Your task to perform on an android device: Set the phone to "Do not disturb". Image 0: 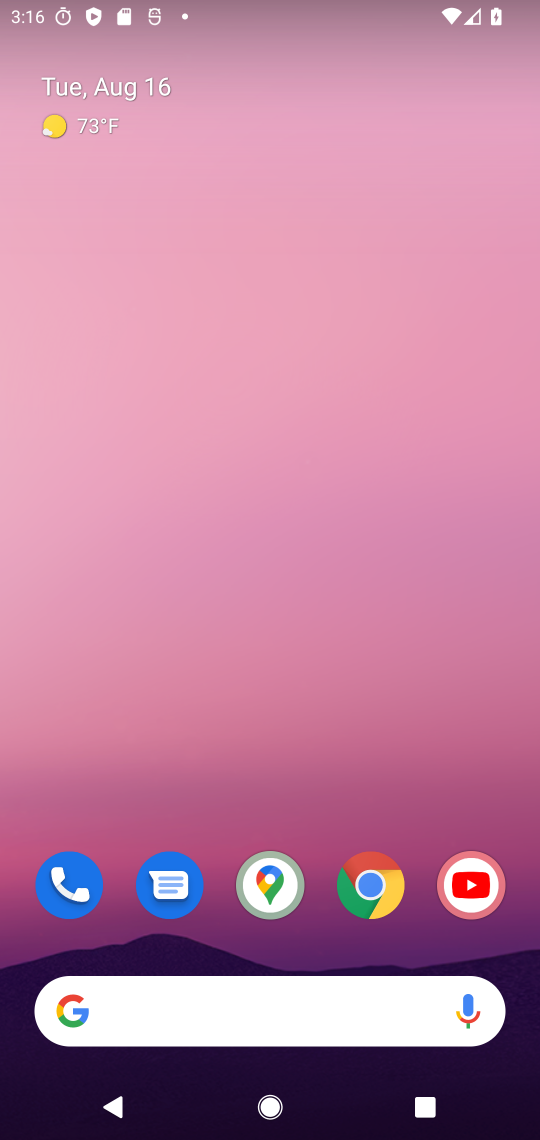
Step 0: drag from (250, 937) to (253, 218)
Your task to perform on an android device: Set the phone to "Do not disturb". Image 1: 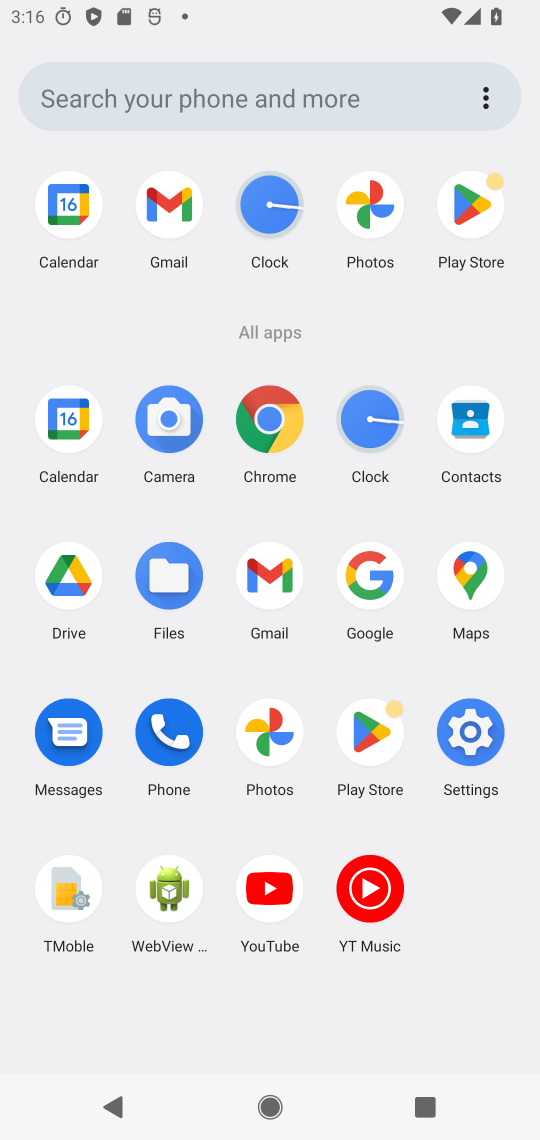
Step 1: drag from (270, 87) to (267, 867)
Your task to perform on an android device: Set the phone to "Do not disturb". Image 2: 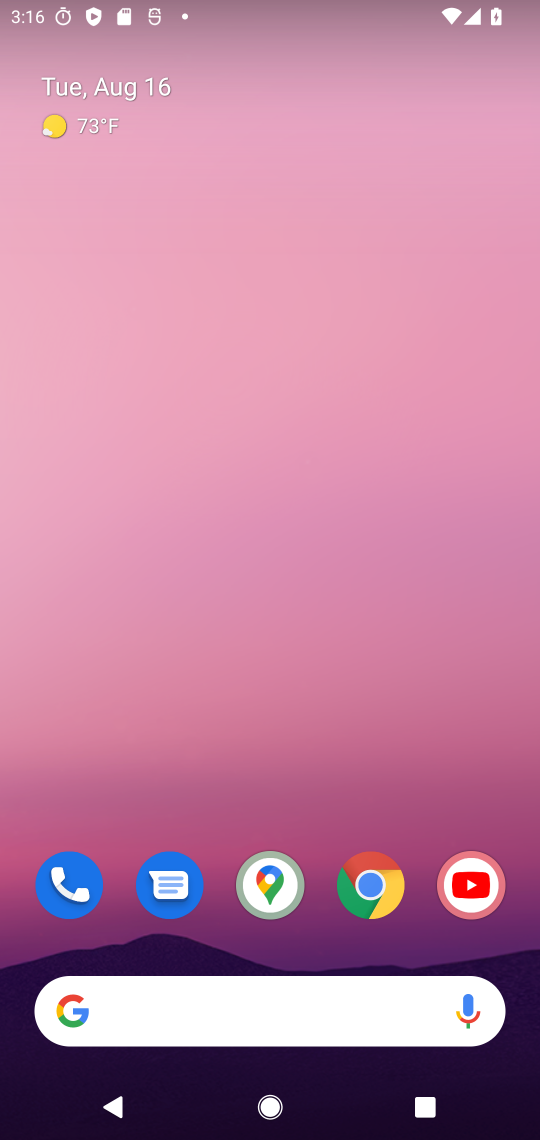
Step 2: drag from (197, 3) to (205, 661)
Your task to perform on an android device: Set the phone to "Do not disturb". Image 3: 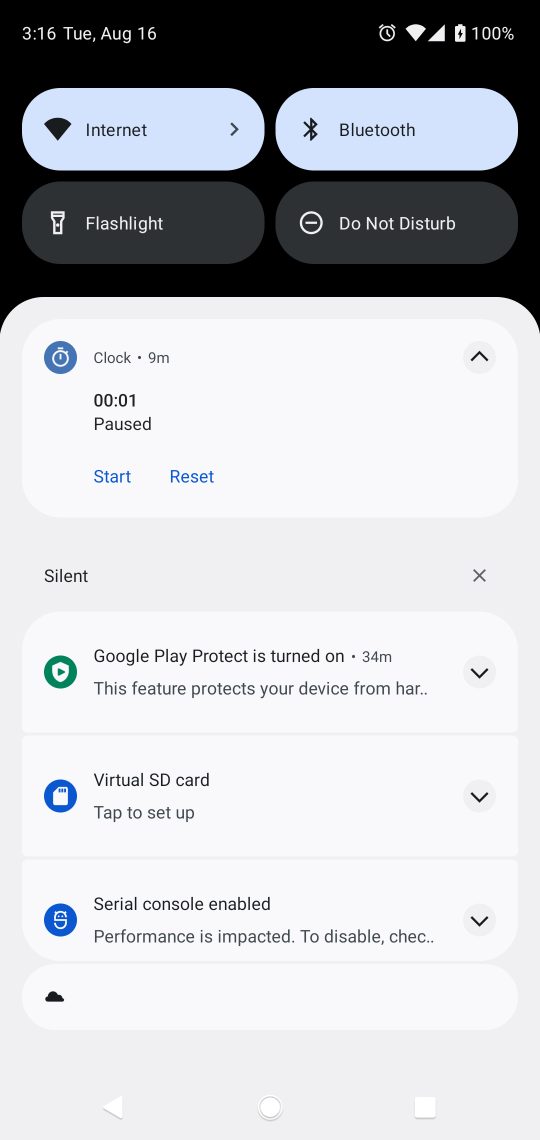
Step 3: click (415, 225)
Your task to perform on an android device: Set the phone to "Do not disturb". Image 4: 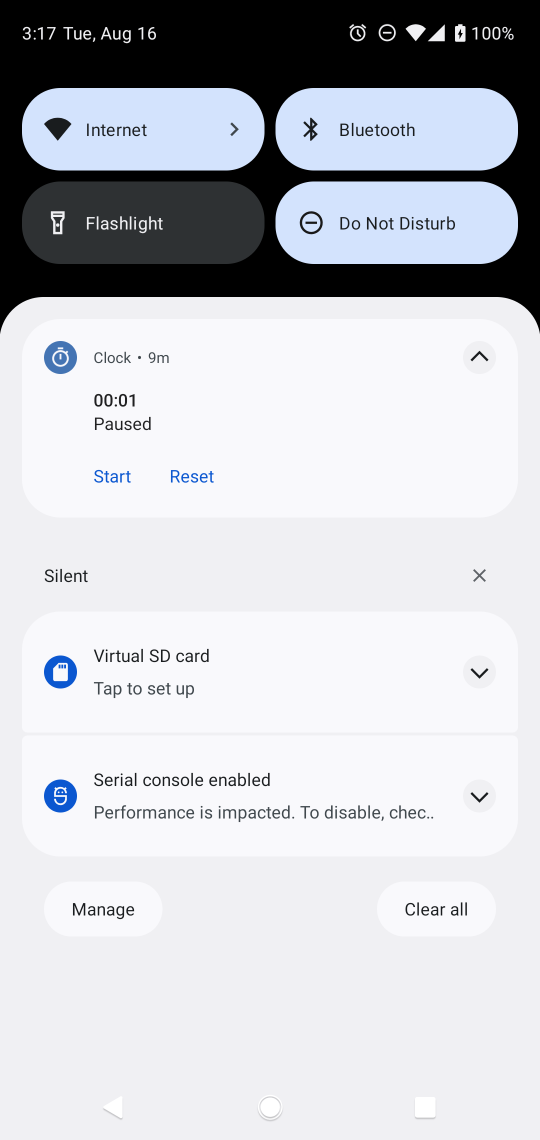
Step 4: task complete